Your task to perform on an android device: Search for Italian restaurants on Maps Image 0: 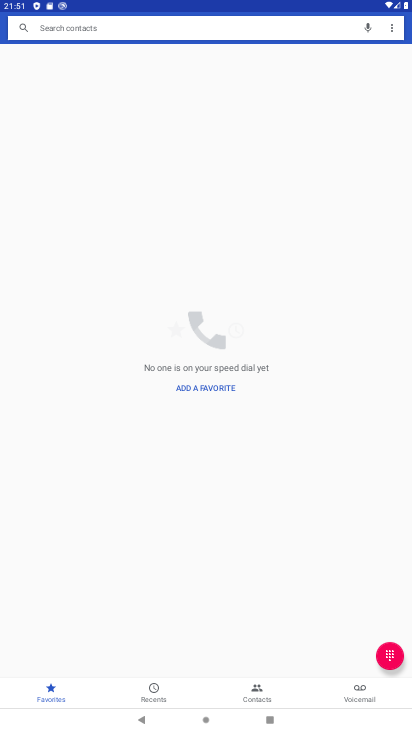
Step 0: press home button
Your task to perform on an android device: Search for Italian restaurants on Maps Image 1: 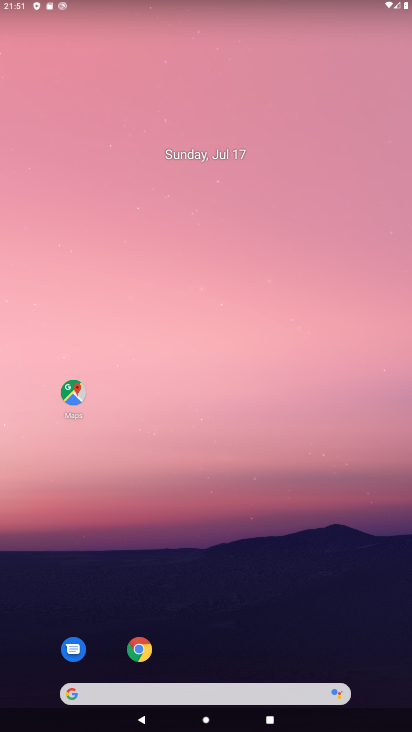
Step 1: click (76, 405)
Your task to perform on an android device: Search for Italian restaurants on Maps Image 2: 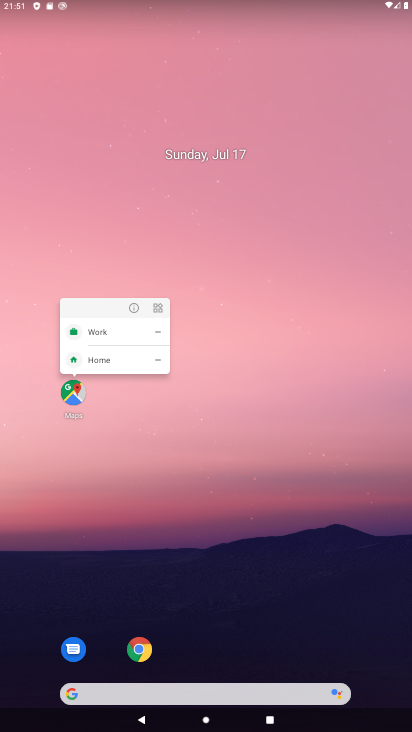
Step 2: click (72, 395)
Your task to perform on an android device: Search for Italian restaurants on Maps Image 3: 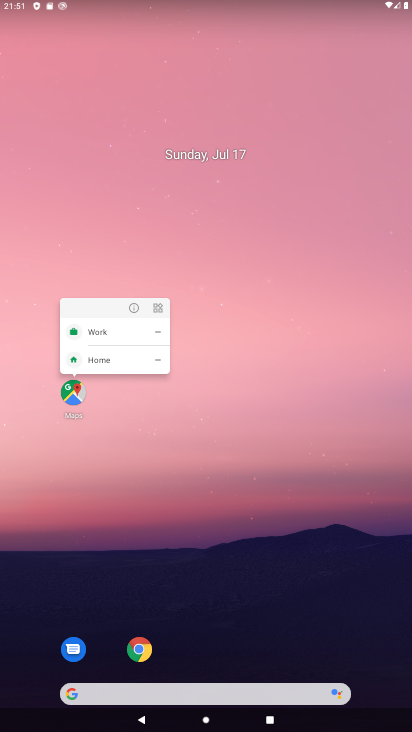
Step 3: click (146, 651)
Your task to perform on an android device: Search for Italian restaurants on Maps Image 4: 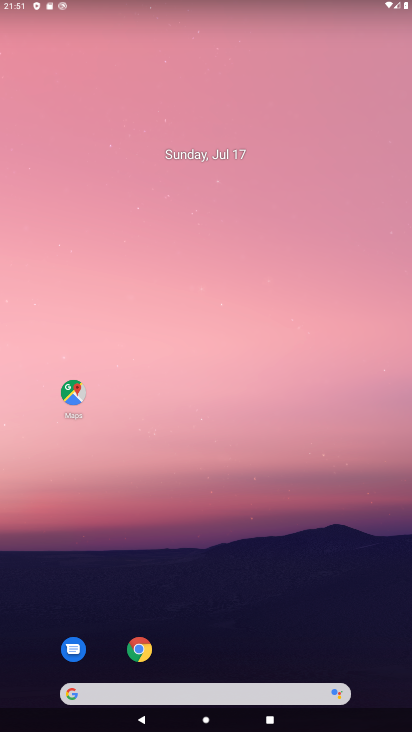
Step 4: click (134, 632)
Your task to perform on an android device: Search for Italian restaurants on Maps Image 5: 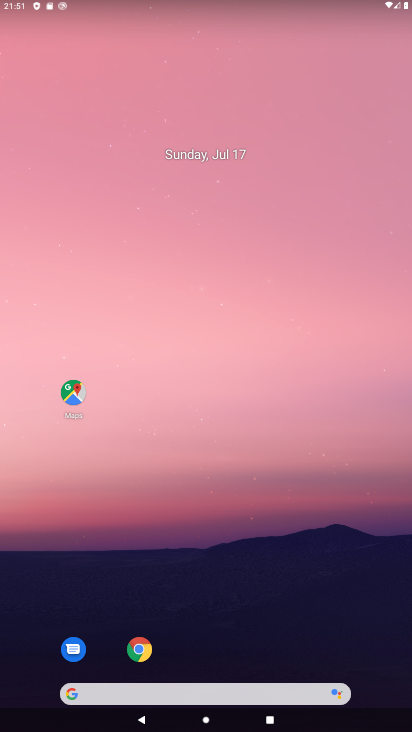
Step 5: click (140, 648)
Your task to perform on an android device: Search for Italian restaurants on Maps Image 6: 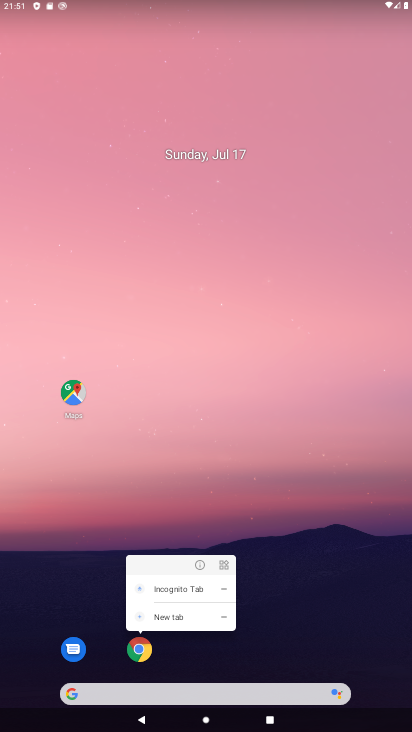
Step 6: click (140, 648)
Your task to perform on an android device: Search for Italian restaurants on Maps Image 7: 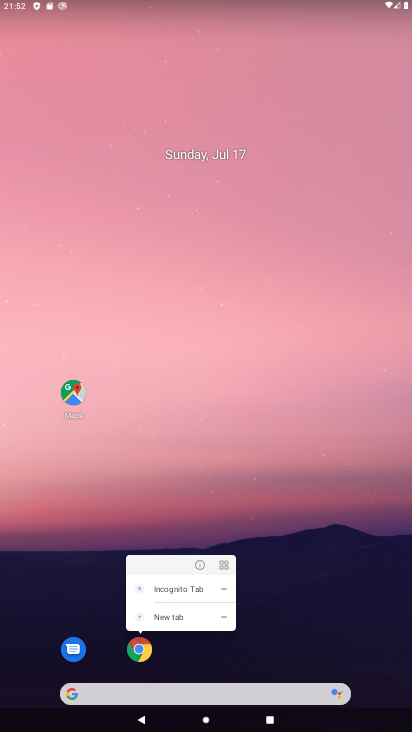
Step 7: click (141, 645)
Your task to perform on an android device: Search for Italian restaurants on Maps Image 8: 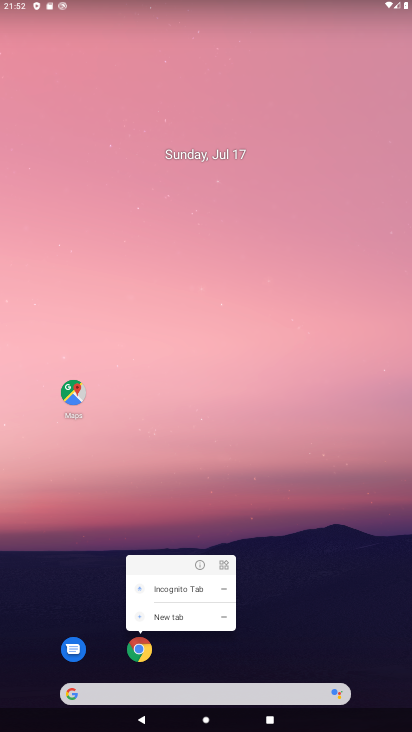
Step 8: click (82, 395)
Your task to perform on an android device: Search for Italian restaurants on Maps Image 9: 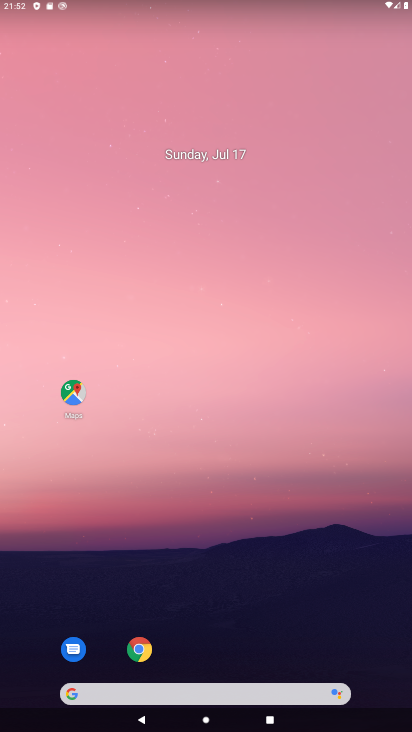
Step 9: click (65, 393)
Your task to perform on an android device: Search for Italian restaurants on Maps Image 10: 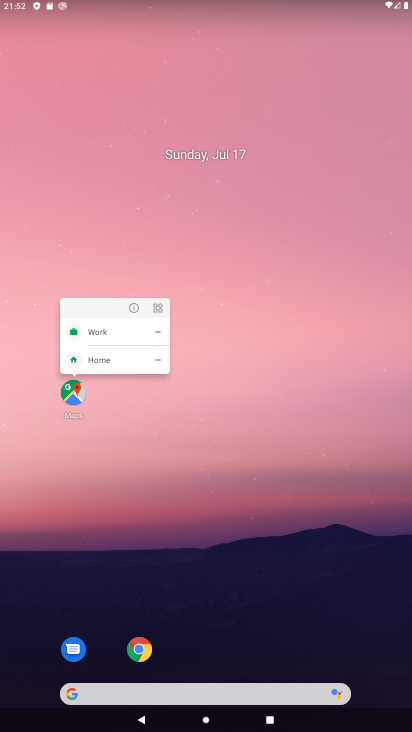
Step 10: click (59, 396)
Your task to perform on an android device: Search for Italian restaurants on Maps Image 11: 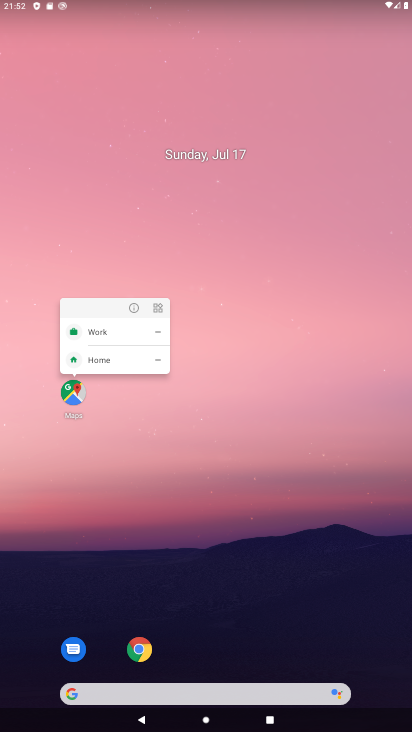
Step 11: task complete